Your task to perform on an android device: View the shopping cart on costco.com. Image 0: 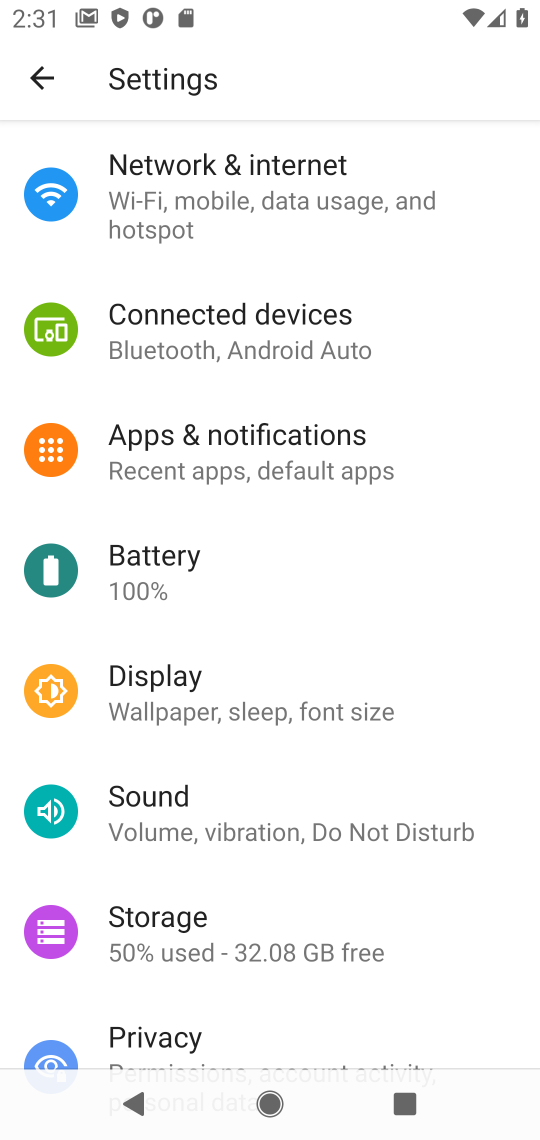
Step 0: click (257, 1104)
Your task to perform on an android device: View the shopping cart on costco.com. Image 1: 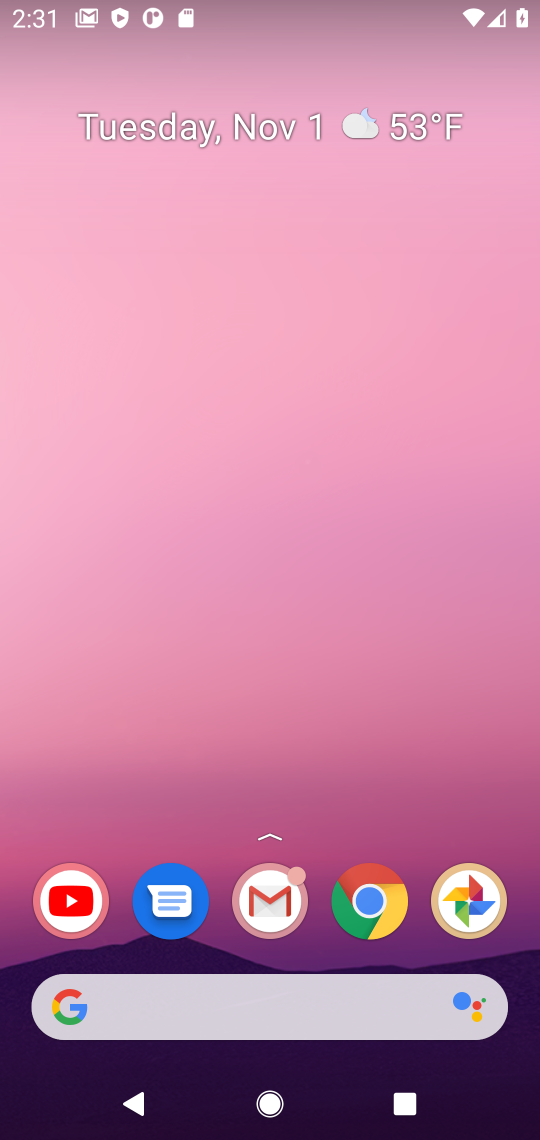
Step 1: click (381, 901)
Your task to perform on an android device: View the shopping cart on costco.com. Image 2: 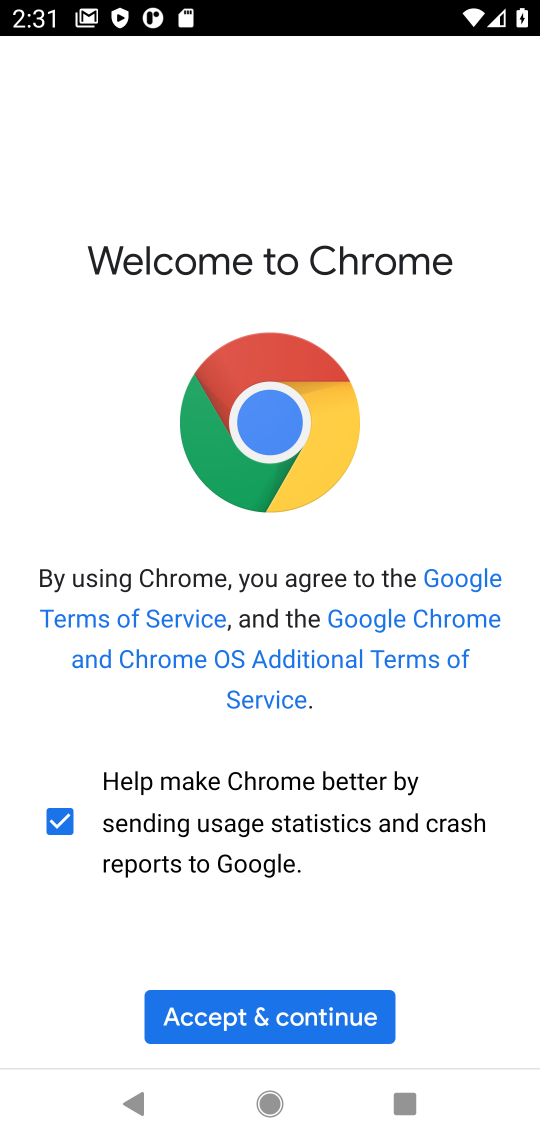
Step 2: click (298, 1006)
Your task to perform on an android device: View the shopping cart on costco.com. Image 3: 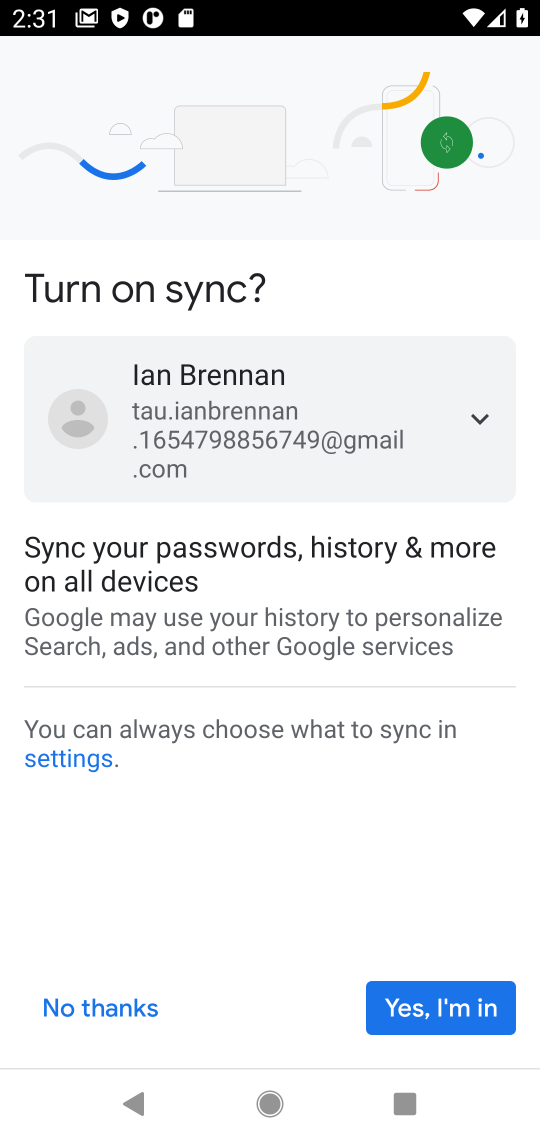
Step 3: click (87, 1008)
Your task to perform on an android device: View the shopping cart on costco.com. Image 4: 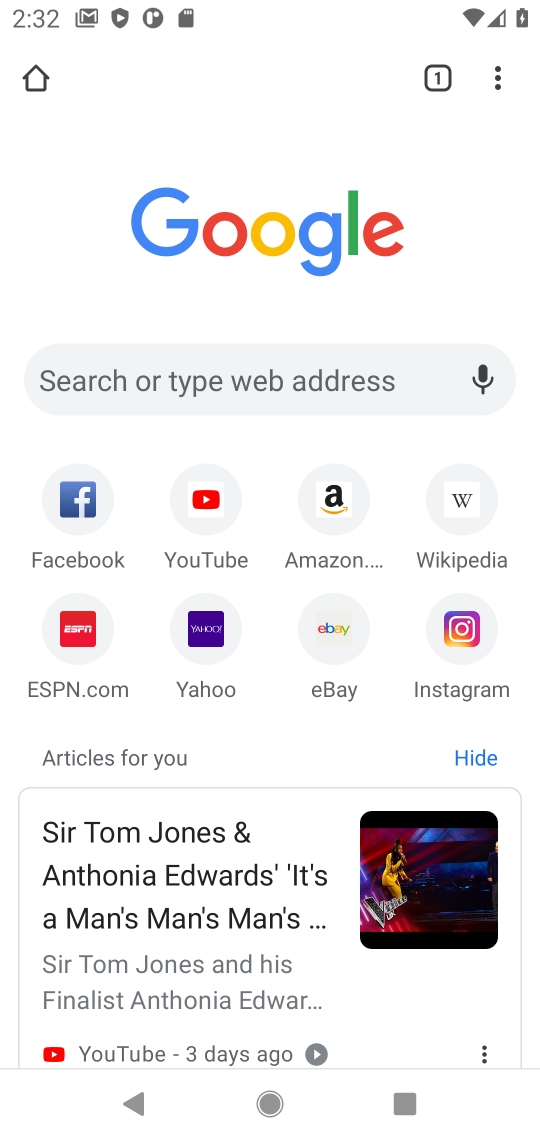
Step 4: click (184, 370)
Your task to perform on an android device: View the shopping cart on costco.com. Image 5: 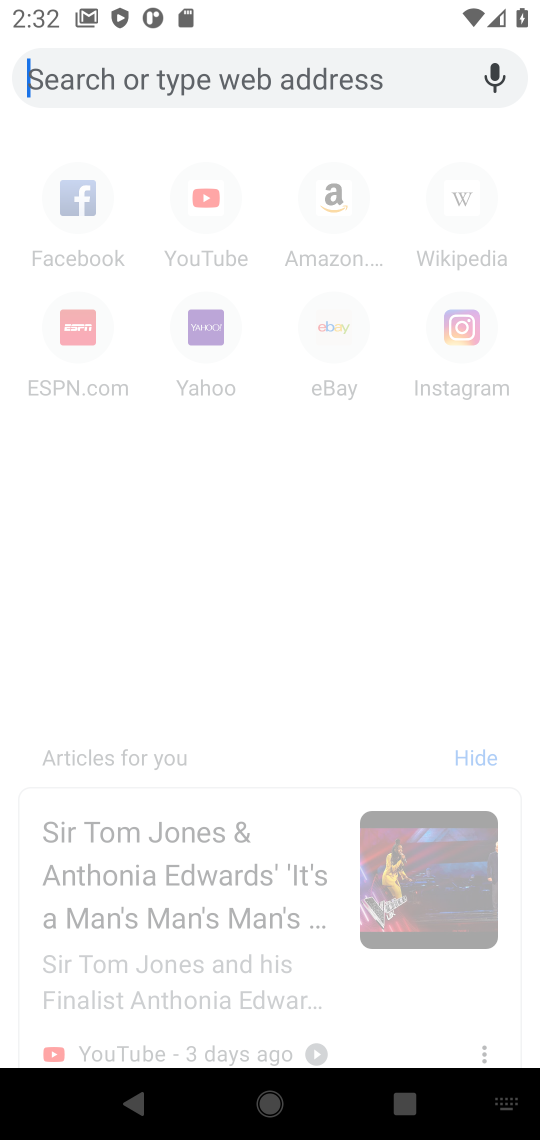
Step 5: type "costco.com"
Your task to perform on an android device: View the shopping cart on costco.com. Image 6: 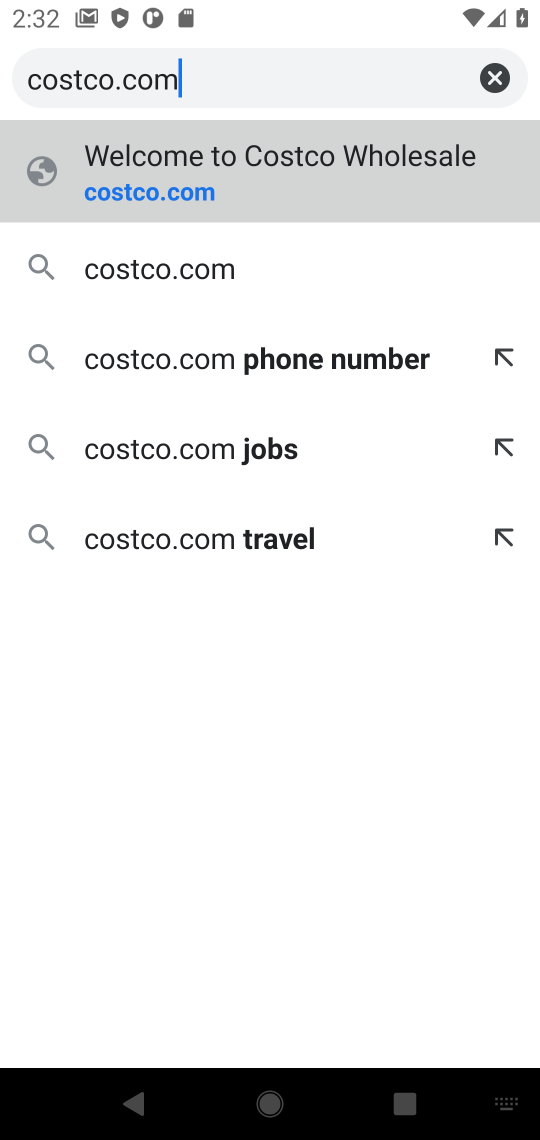
Step 6: click (258, 167)
Your task to perform on an android device: View the shopping cart on costco.com. Image 7: 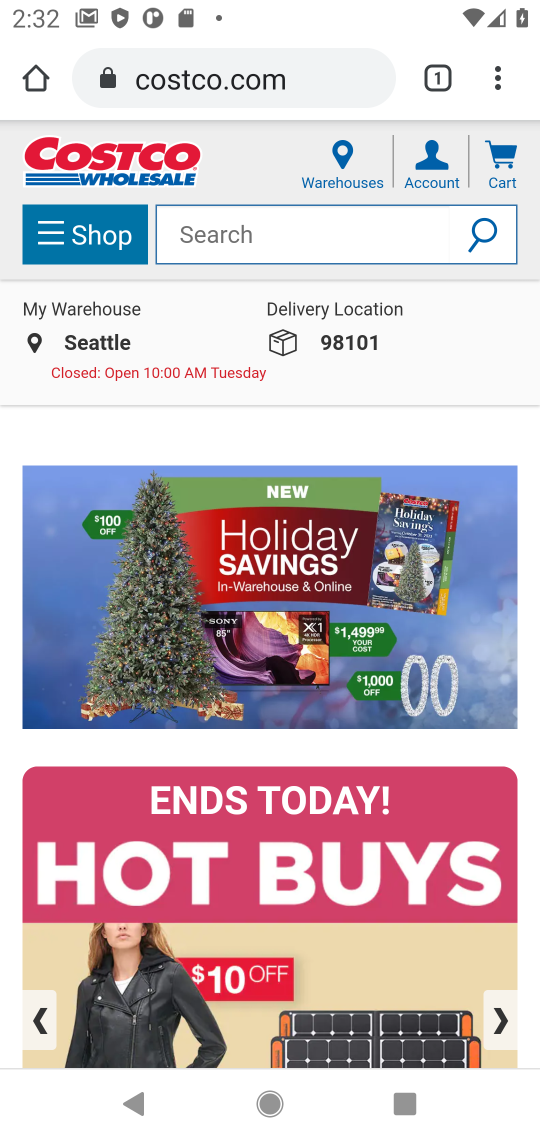
Step 7: click (300, 237)
Your task to perform on an android device: View the shopping cart on costco.com. Image 8: 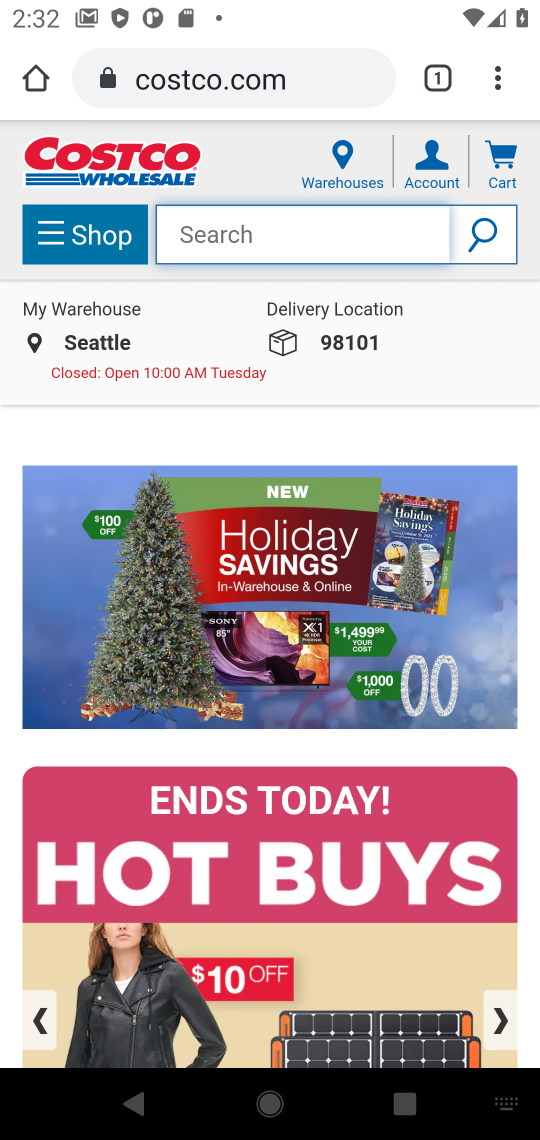
Step 8: click (503, 165)
Your task to perform on an android device: View the shopping cart on costco.com. Image 9: 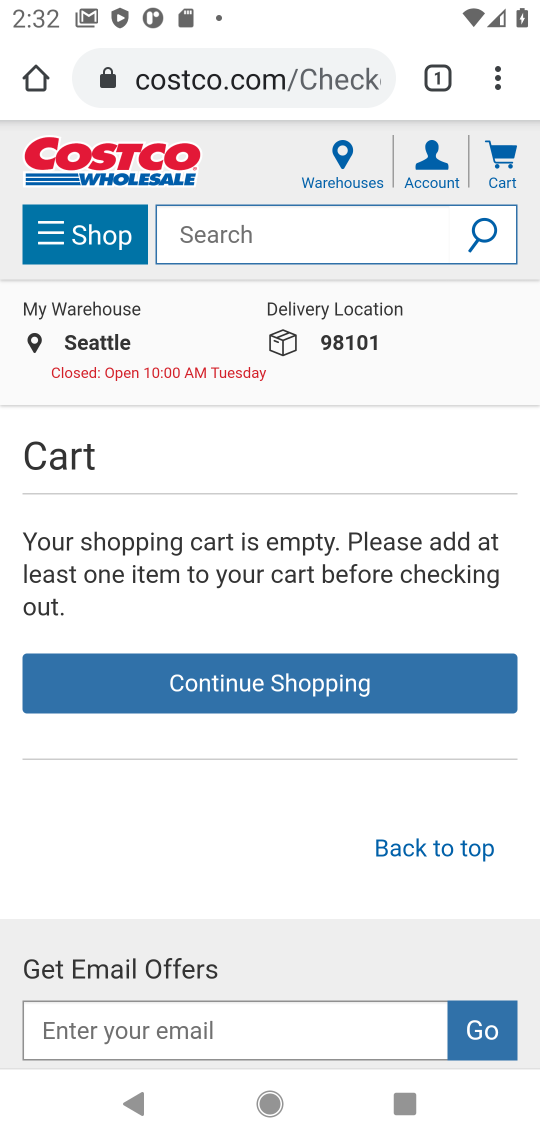
Step 9: task complete